Your task to perform on an android device: turn on priority inbox in the gmail app Image 0: 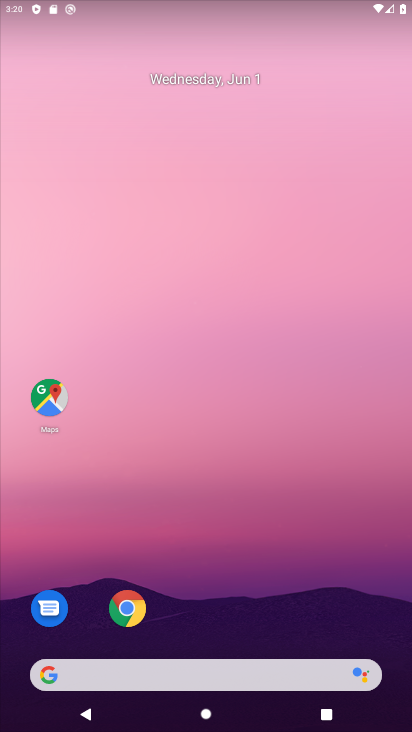
Step 0: drag from (241, 681) to (162, 108)
Your task to perform on an android device: turn on priority inbox in the gmail app Image 1: 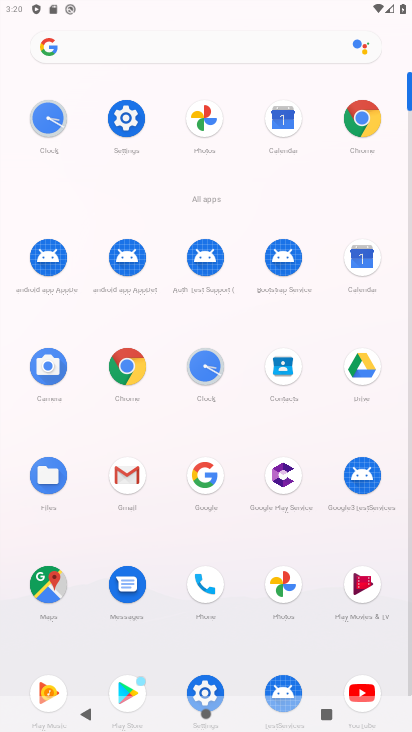
Step 1: click (133, 483)
Your task to perform on an android device: turn on priority inbox in the gmail app Image 2: 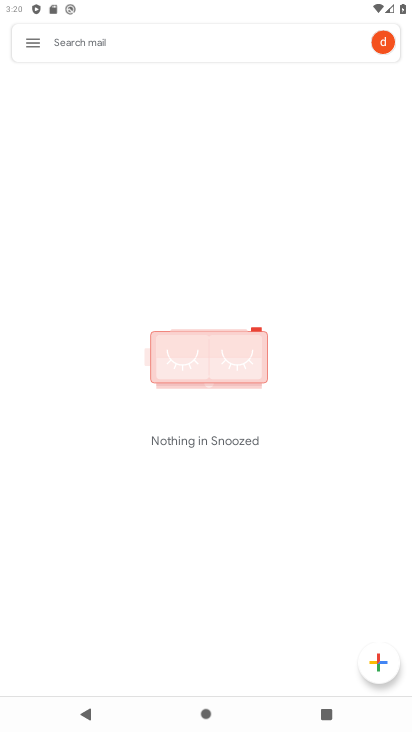
Step 2: click (36, 45)
Your task to perform on an android device: turn on priority inbox in the gmail app Image 3: 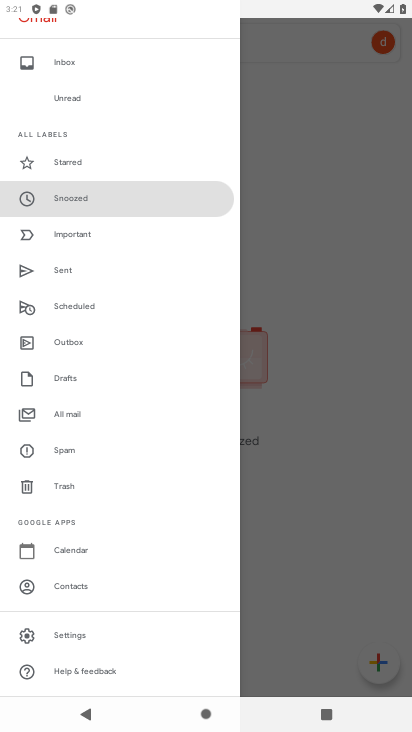
Step 3: click (80, 635)
Your task to perform on an android device: turn on priority inbox in the gmail app Image 4: 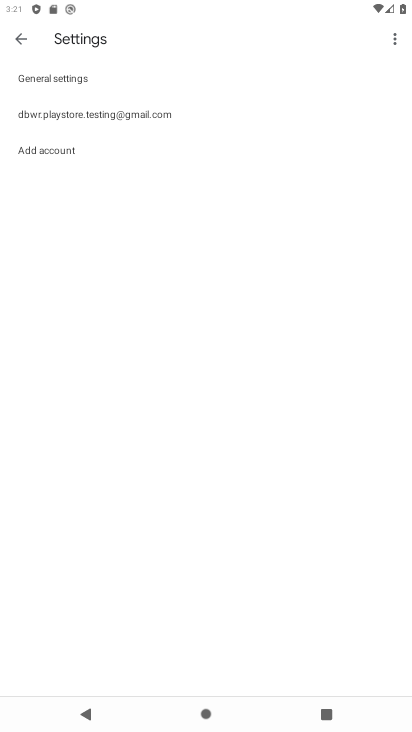
Step 4: click (75, 113)
Your task to perform on an android device: turn on priority inbox in the gmail app Image 5: 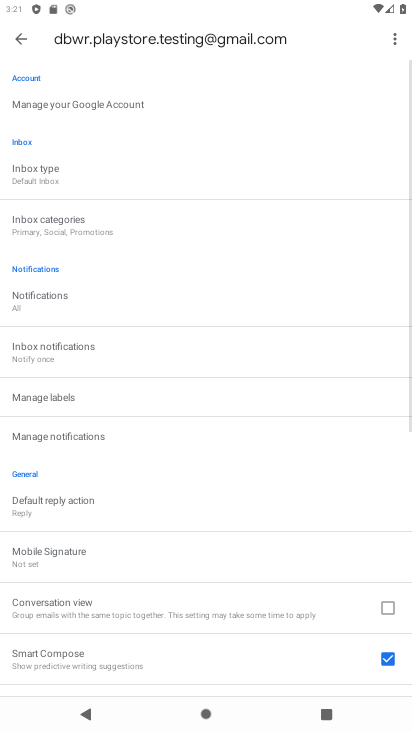
Step 5: click (77, 172)
Your task to perform on an android device: turn on priority inbox in the gmail app Image 6: 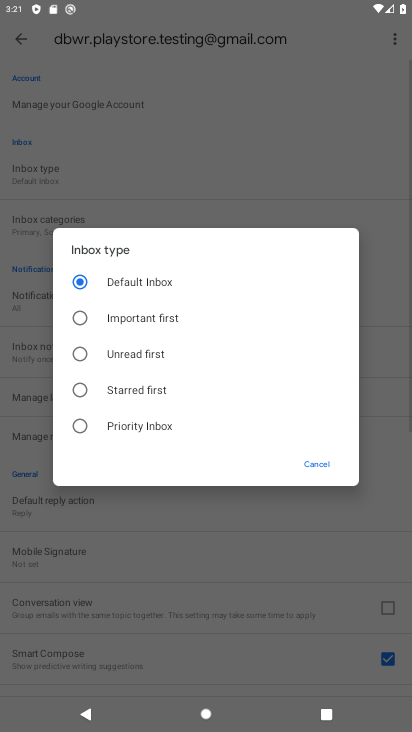
Step 6: click (141, 425)
Your task to perform on an android device: turn on priority inbox in the gmail app Image 7: 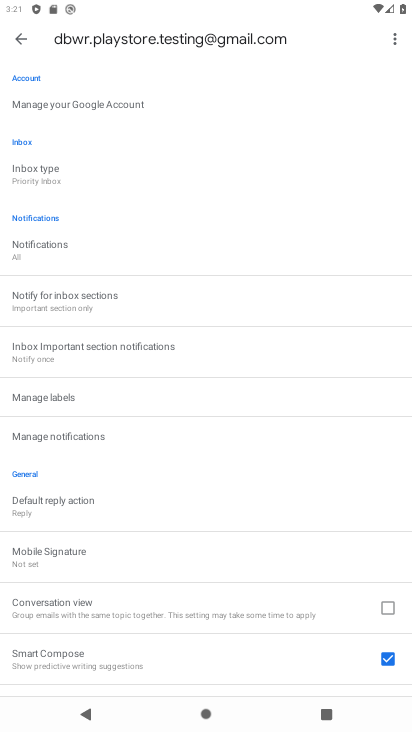
Step 7: task complete